Your task to perform on an android device: Open location settings Image 0: 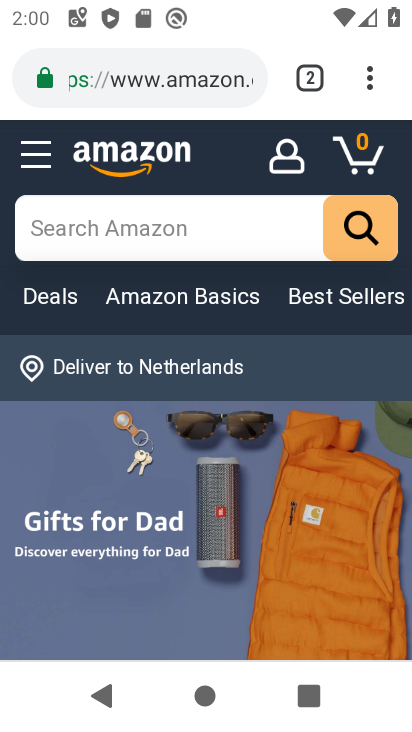
Step 0: press home button
Your task to perform on an android device: Open location settings Image 1: 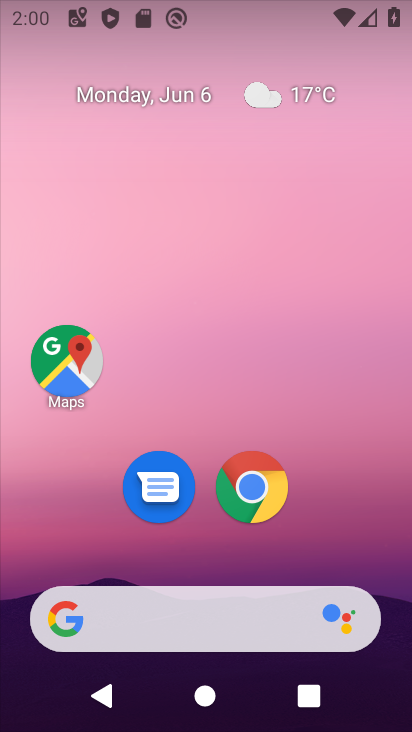
Step 1: drag from (85, 594) to (265, 34)
Your task to perform on an android device: Open location settings Image 2: 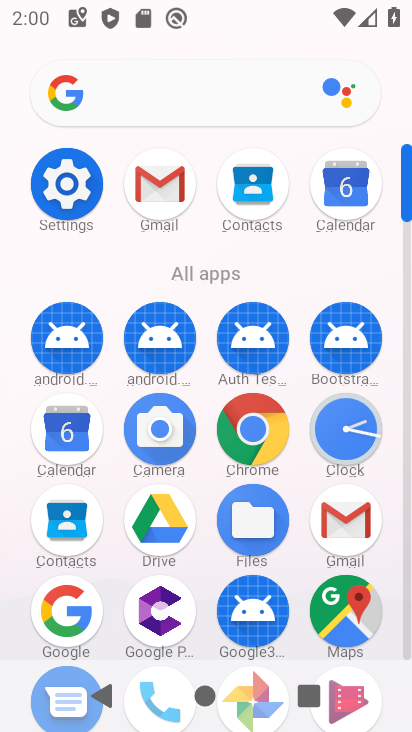
Step 2: drag from (139, 600) to (224, 361)
Your task to perform on an android device: Open location settings Image 3: 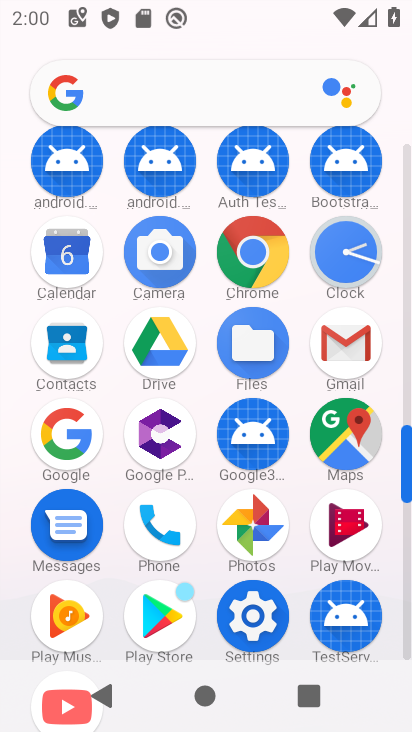
Step 3: click (272, 631)
Your task to perform on an android device: Open location settings Image 4: 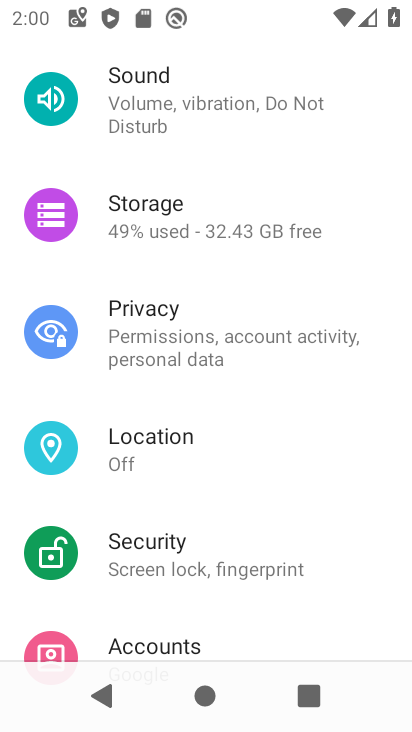
Step 4: drag from (192, 614) to (280, 350)
Your task to perform on an android device: Open location settings Image 5: 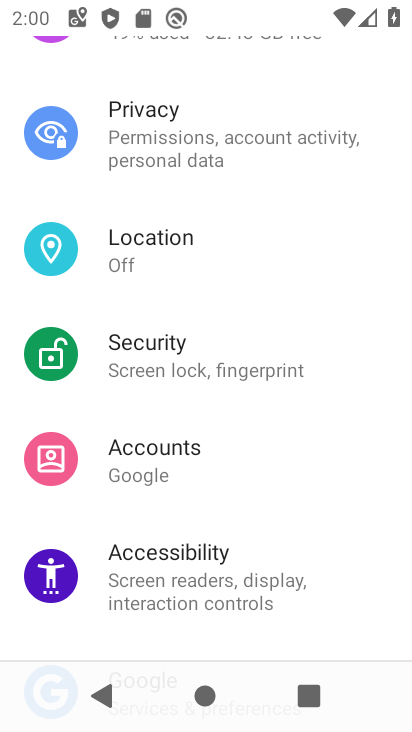
Step 5: click (206, 232)
Your task to perform on an android device: Open location settings Image 6: 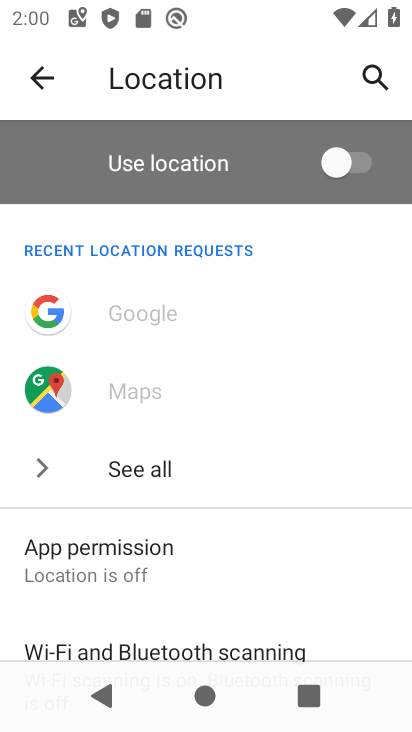
Step 6: task complete